Your task to perform on an android device: Go to accessibility settings Image 0: 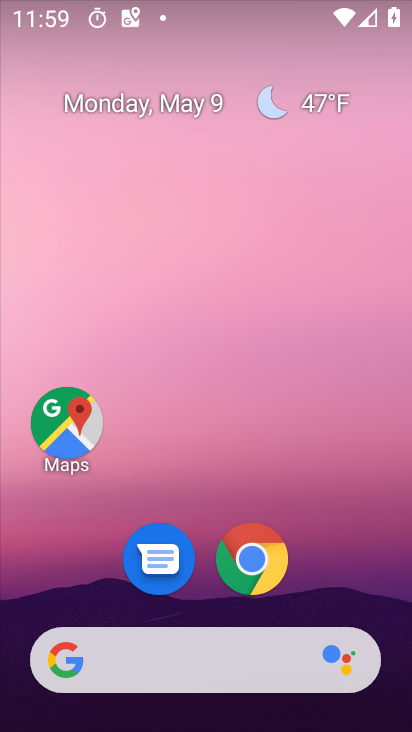
Step 0: drag from (341, 572) to (297, 313)
Your task to perform on an android device: Go to accessibility settings Image 1: 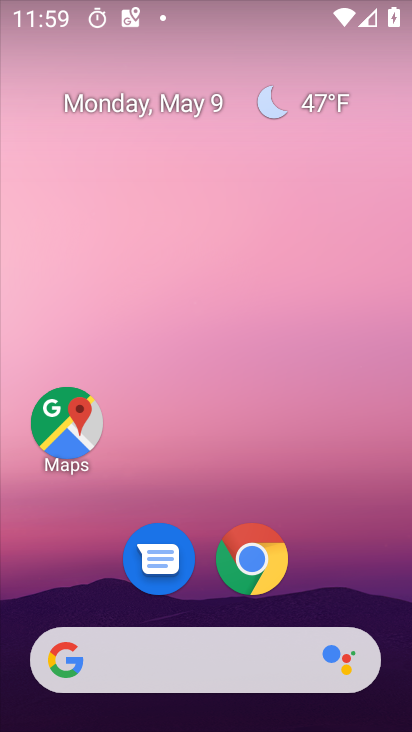
Step 1: drag from (364, 538) to (392, 156)
Your task to perform on an android device: Go to accessibility settings Image 2: 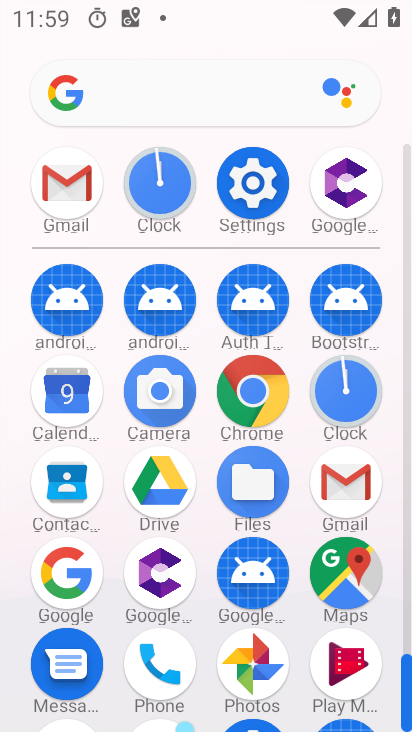
Step 2: click (267, 171)
Your task to perform on an android device: Go to accessibility settings Image 3: 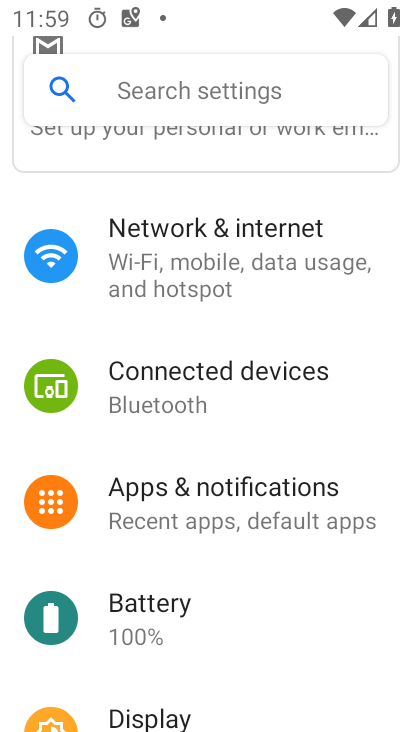
Step 3: drag from (289, 637) to (338, 382)
Your task to perform on an android device: Go to accessibility settings Image 4: 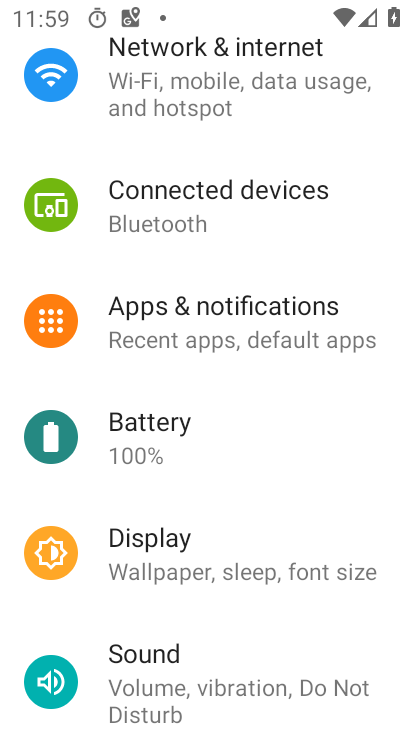
Step 4: drag from (271, 599) to (244, 323)
Your task to perform on an android device: Go to accessibility settings Image 5: 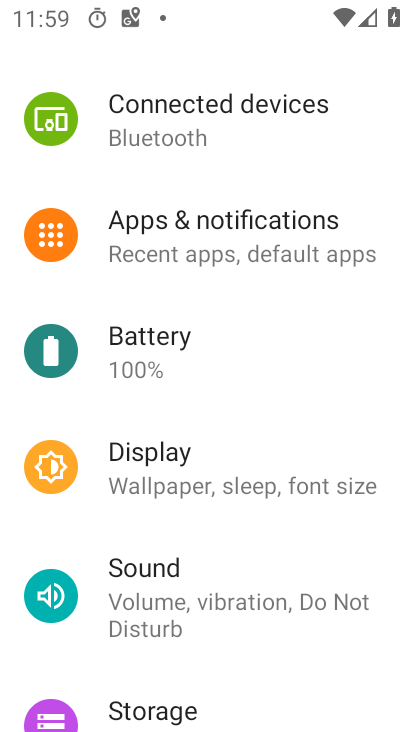
Step 5: drag from (215, 582) to (216, 303)
Your task to perform on an android device: Go to accessibility settings Image 6: 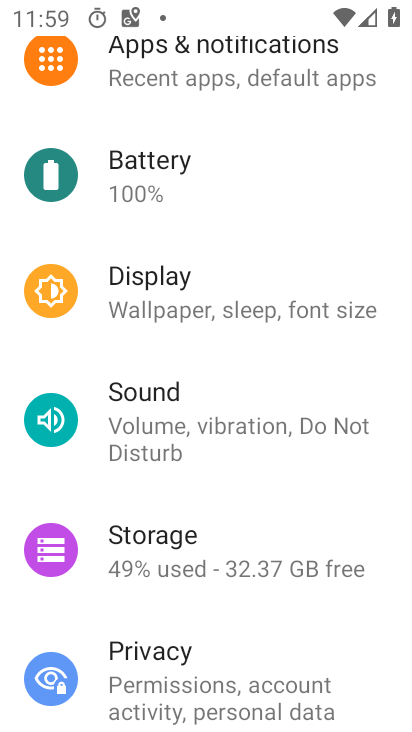
Step 6: drag from (277, 452) to (277, 191)
Your task to perform on an android device: Go to accessibility settings Image 7: 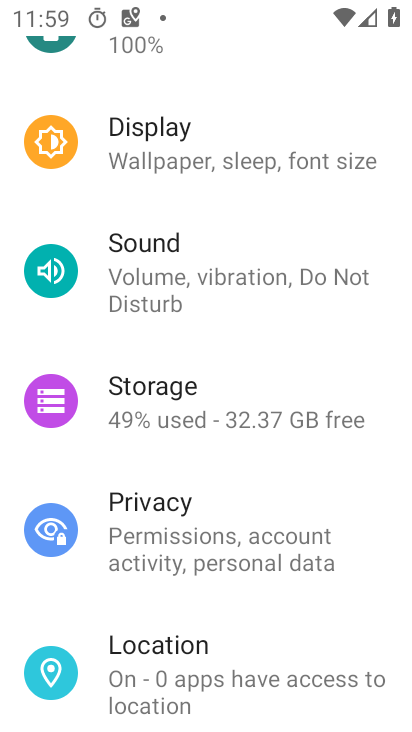
Step 7: drag from (282, 573) to (247, 195)
Your task to perform on an android device: Go to accessibility settings Image 8: 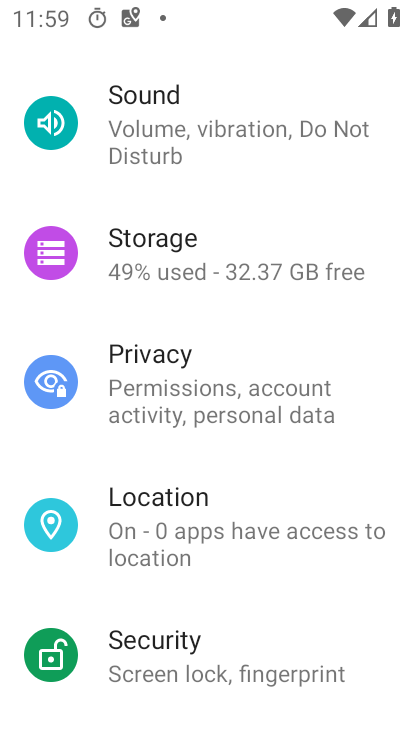
Step 8: drag from (247, 566) to (245, 149)
Your task to perform on an android device: Go to accessibility settings Image 9: 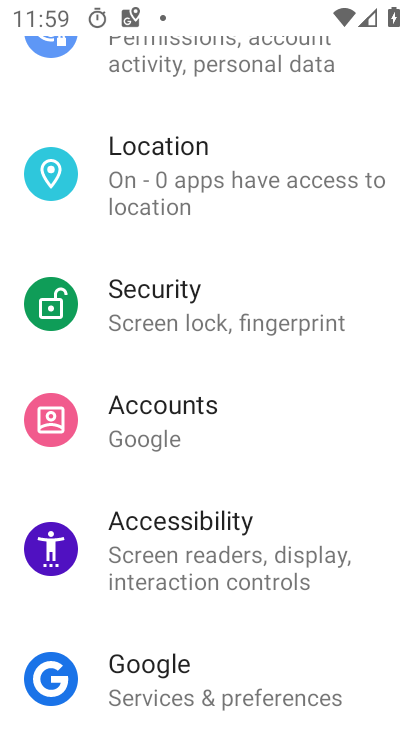
Step 9: drag from (247, 532) to (242, 45)
Your task to perform on an android device: Go to accessibility settings Image 10: 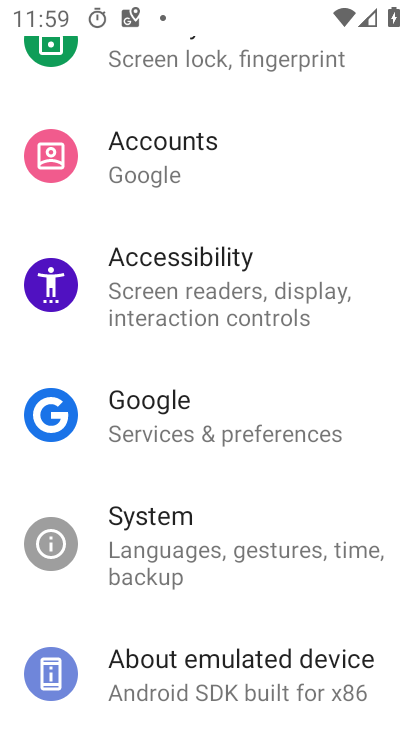
Step 10: click (270, 246)
Your task to perform on an android device: Go to accessibility settings Image 11: 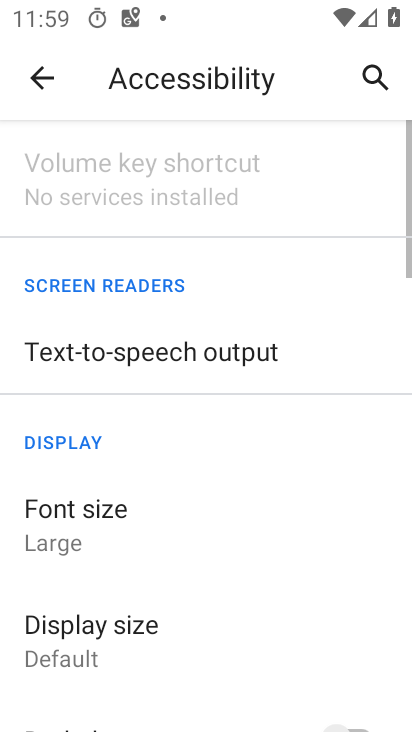
Step 11: task complete